Your task to perform on an android device: Turn off the flashlight Image 0: 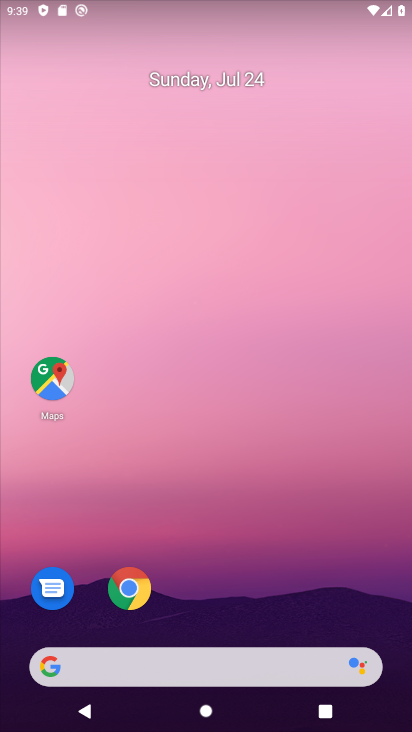
Step 0: click (131, 247)
Your task to perform on an android device: Turn off the flashlight Image 1: 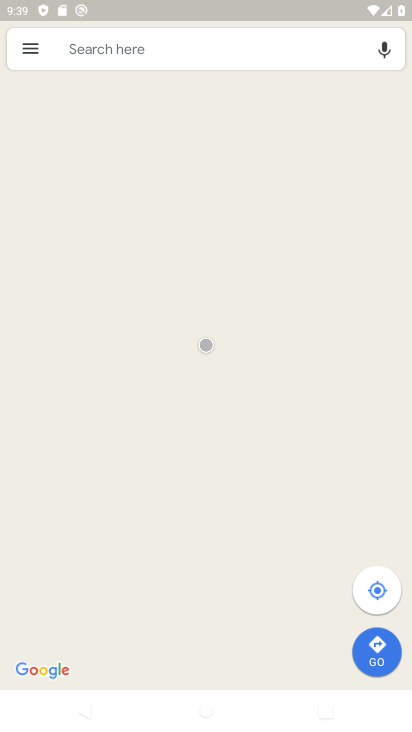
Step 1: task complete